Your task to perform on an android device: Go to privacy settings Image 0: 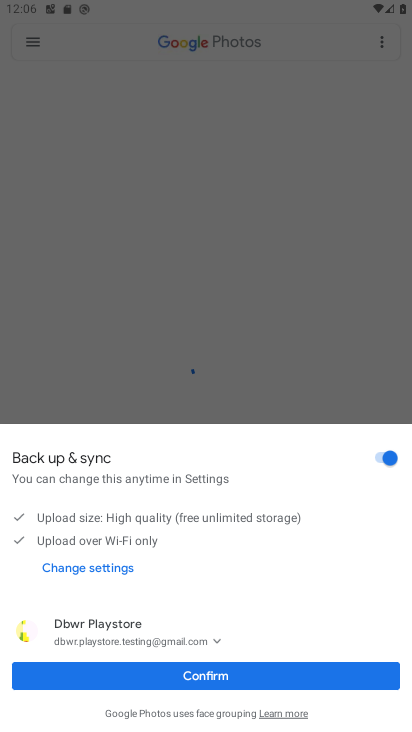
Step 0: press home button
Your task to perform on an android device: Go to privacy settings Image 1: 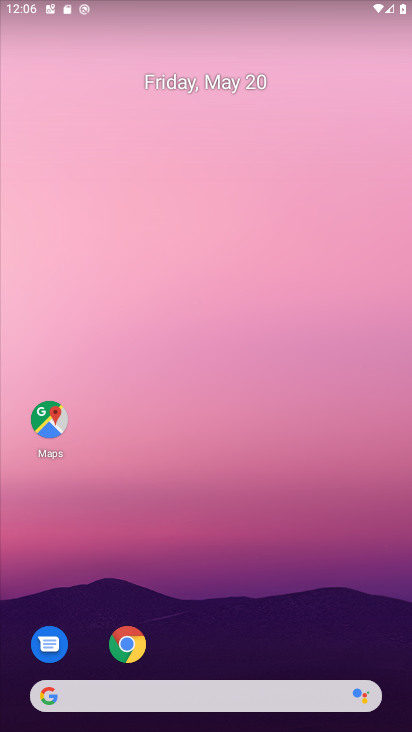
Step 1: drag from (157, 657) to (157, 379)
Your task to perform on an android device: Go to privacy settings Image 2: 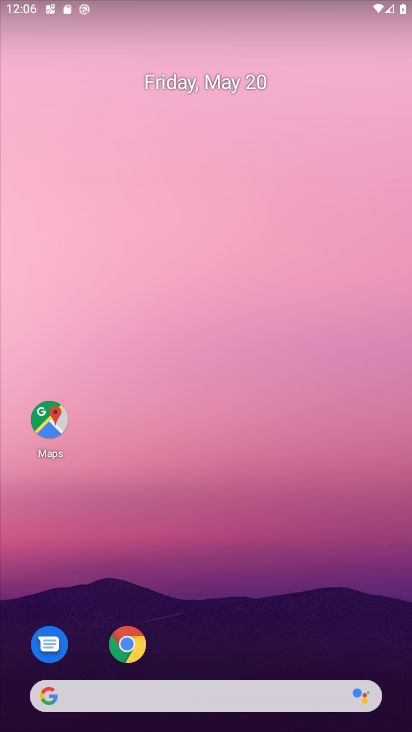
Step 2: drag from (275, 610) to (243, 297)
Your task to perform on an android device: Go to privacy settings Image 3: 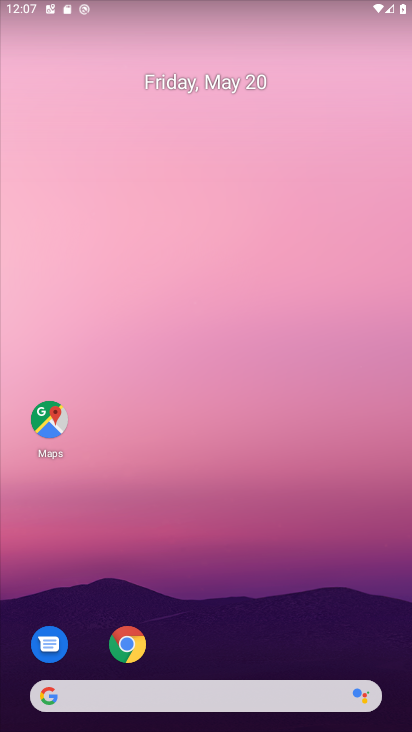
Step 3: drag from (216, 664) to (163, 315)
Your task to perform on an android device: Go to privacy settings Image 4: 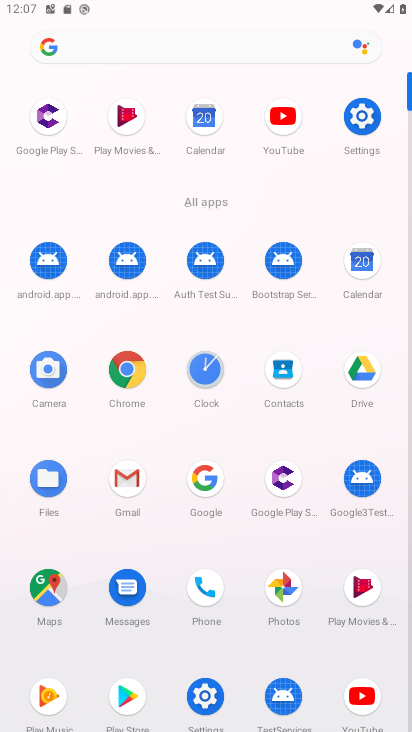
Step 4: click (352, 122)
Your task to perform on an android device: Go to privacy settings Image 5: 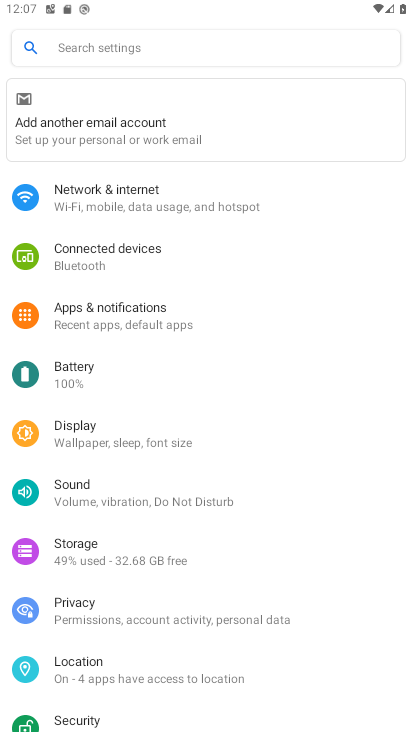
Step 5: click (95, 616)
Your task to perform on an android device: Go to privacy settings Image 6: 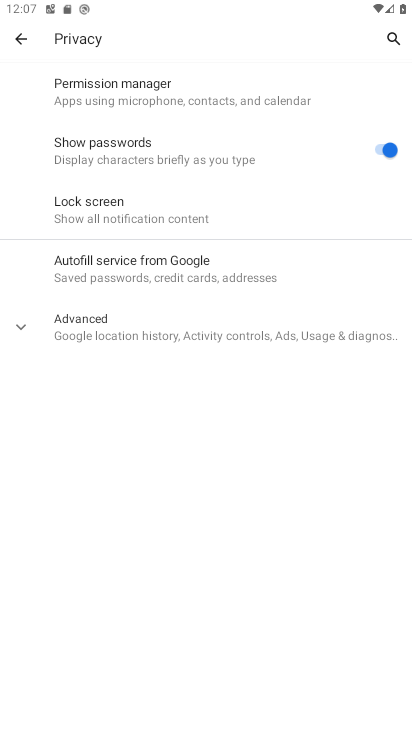
Step 6: click (128, 323)
Your task to perform on an android device: Go to privacy settings Image 7: 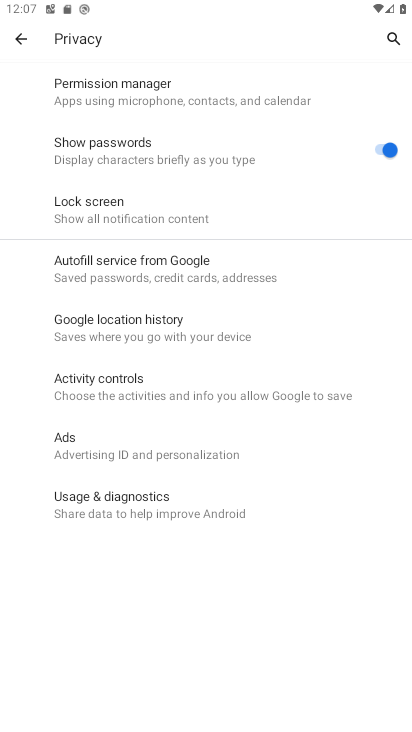
Step 7: task complete